Your task to perform on an android device: Go to eBay Image 0: 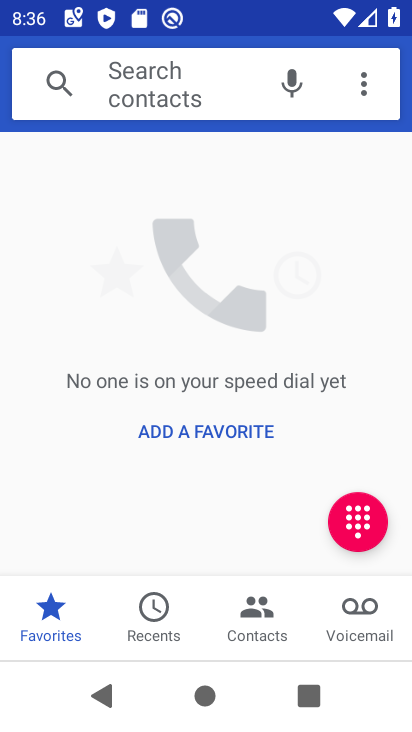
Step 0: press home button
Your task to perform on an android device: Go to eBay Image 1: 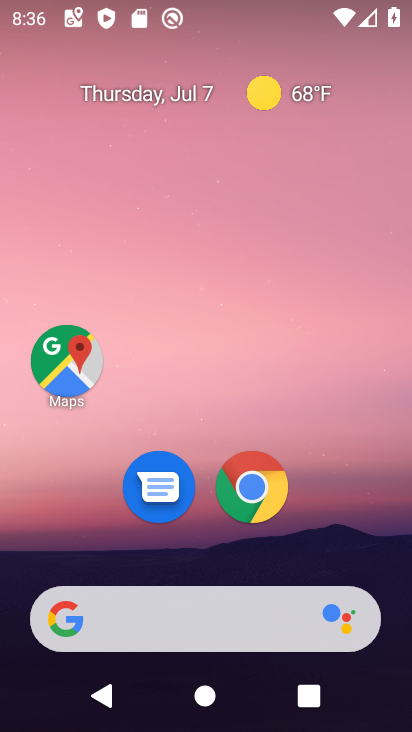
Step 1: click (245, 489)
Your task to perform on an android device: Go to eBay Image 2: 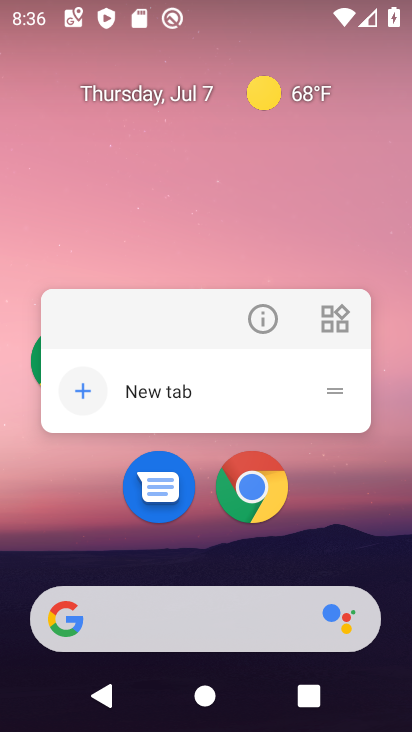
Step 2: click (267, 488)
Your task to perform on an android device: Go to eBay Image 3: 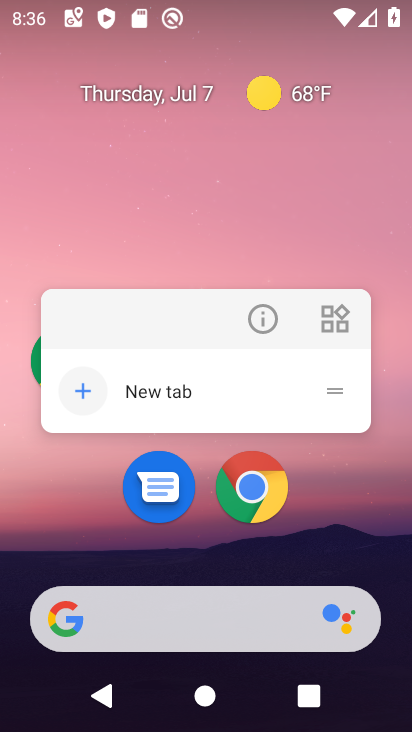
Step 3: click (250, 483)
Your task to perform on an android device: Go to eBay Image 4: 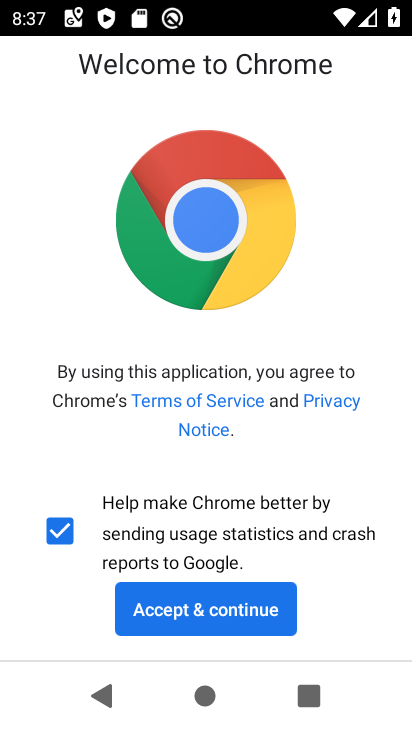
Step 4: click (232, 607)
Your task to perform on an android device: Go to eBay Image 5: 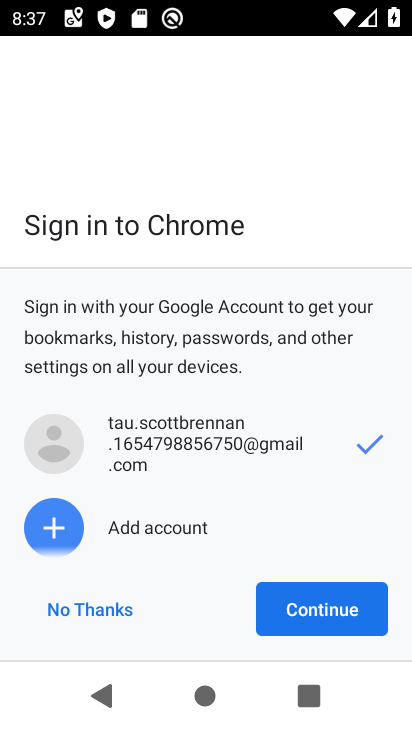
Step 5: click (363, 613)
Your task to perform on an android device: Go to eBay Image 6: 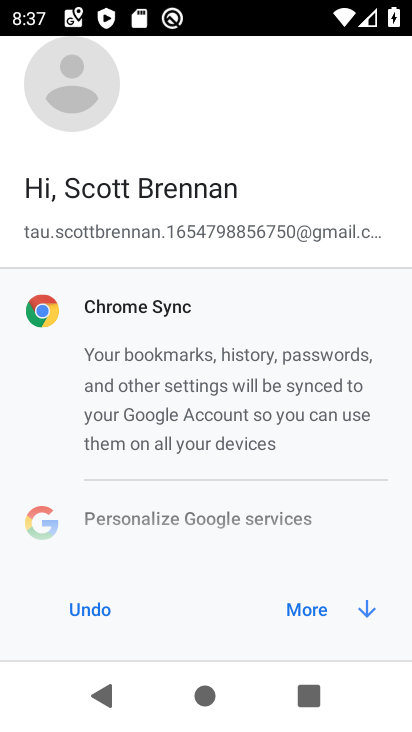
Step 6: click (320, 611)
Your task to perform on an android device: Go to eBay Image 7: 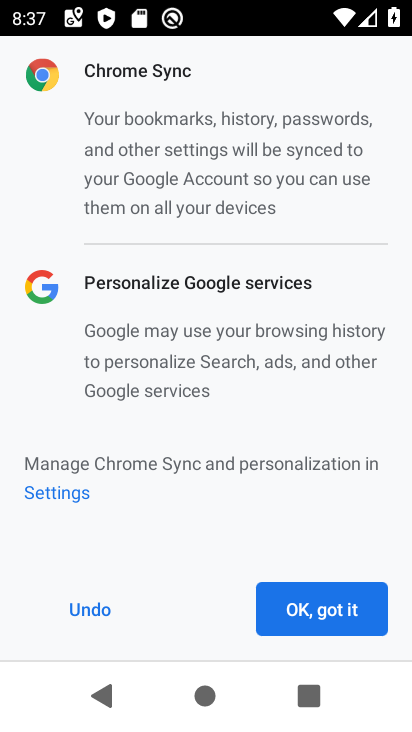
Step 7: click (352, 622)
Your task to perform on an android device: Go to eBay Image 8: 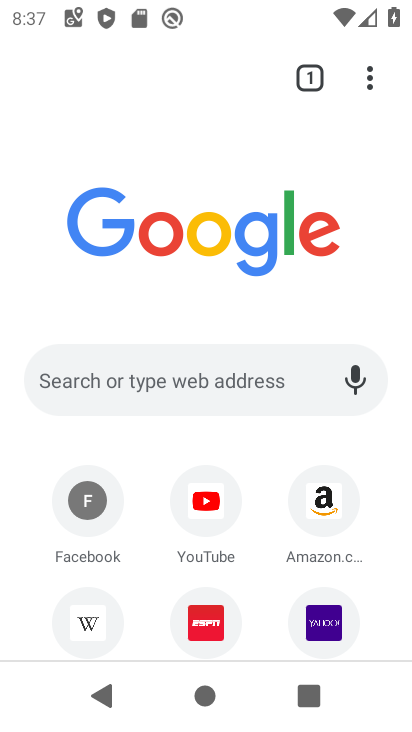
Step 8: click (179, 375)
Your task to perform on an android device: Go to eBay Image 9: 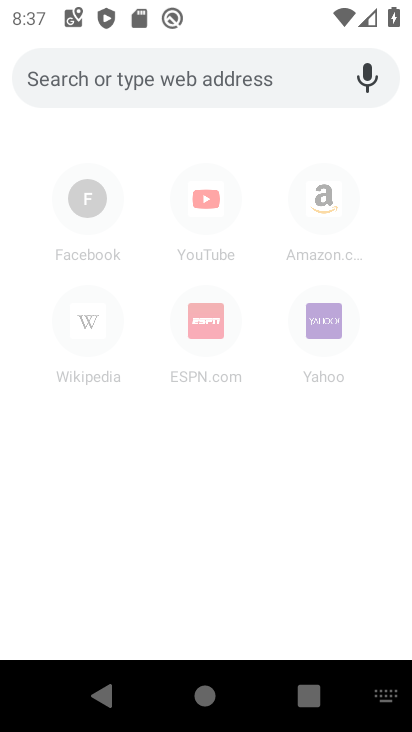
Step 9: type "ebay"
Your task to perform on an android device: Go to eBay Image 10: 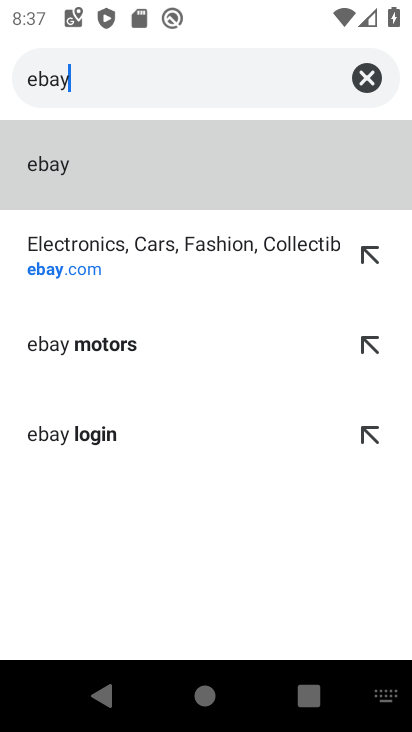
Step 10: click (19, 281)
Your task to perform on an android device: Go to eBay Image 11: 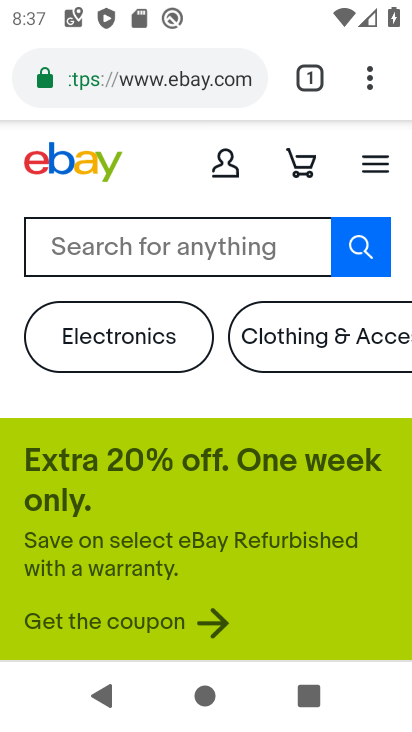
Step 11: task complete